Your task to perform on an android device: delete location history Image 0: 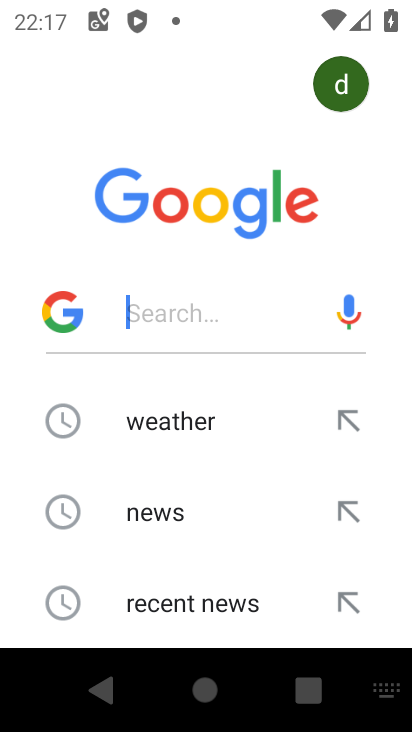
Step 0: press home button
Your task to perform on an android device: delete location history Image 1: 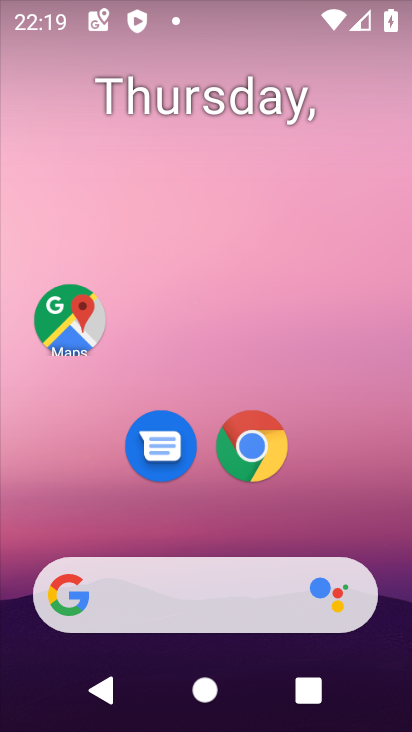
Step 1: click (36, 316)
Your task to perform on an android device: delete location history Image 2: 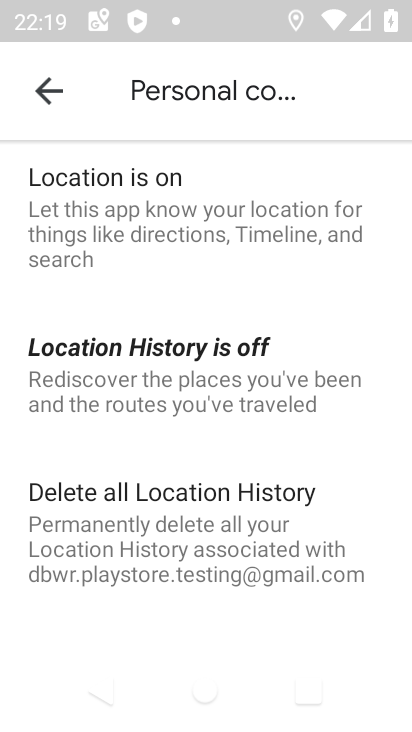
Step 2: click (47, 108)
Your task to perform on an android device: delete location history Image 3: 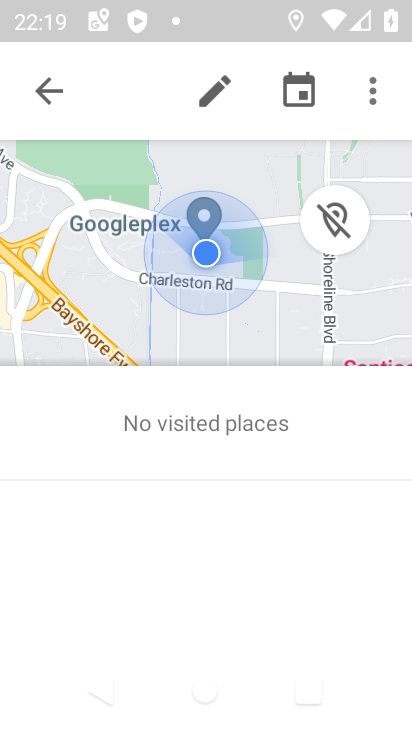
Step 3: click (67, 177)
Your task to perform on an android device: delete location history Image 4: 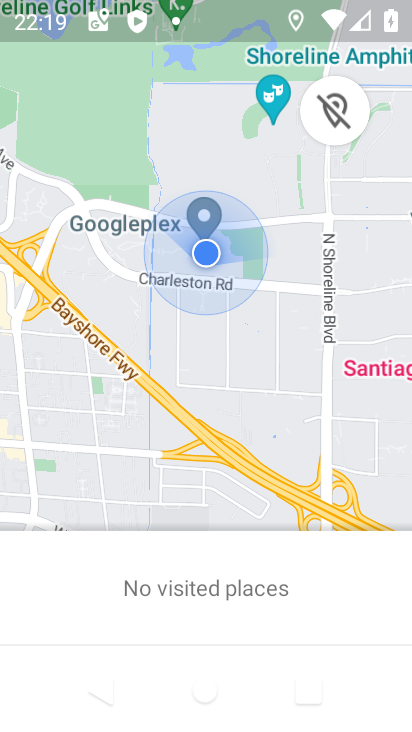
Step 4: click (49, 104)
Your task to perform on an android device: delete location history Image 5: 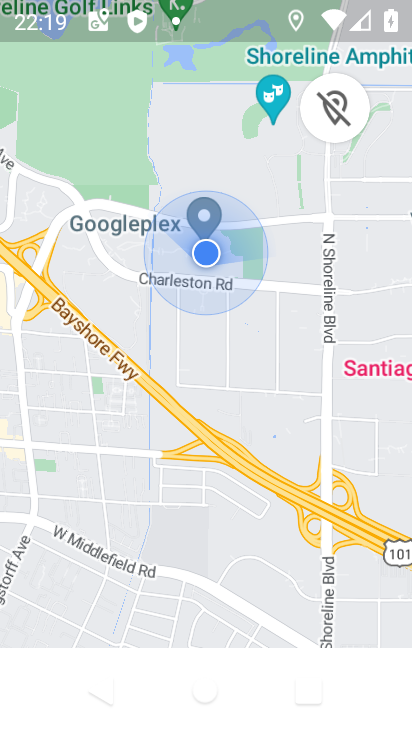
Step 5: press back button
Your task to perform on an android device: delete location history Image 6: 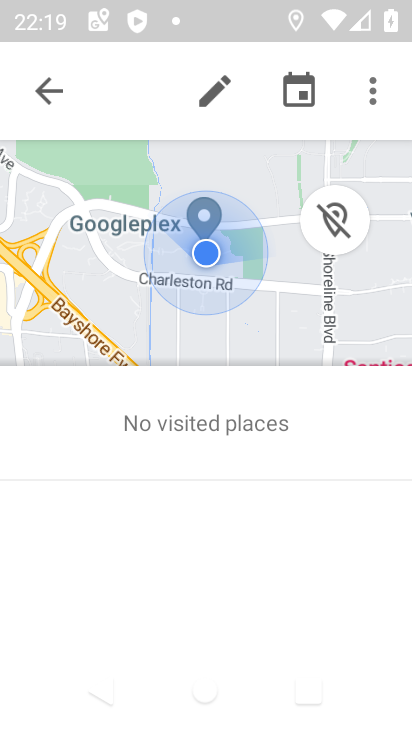
Step 6: press back button
Your task to perform on an android device: delete location history Image 7: 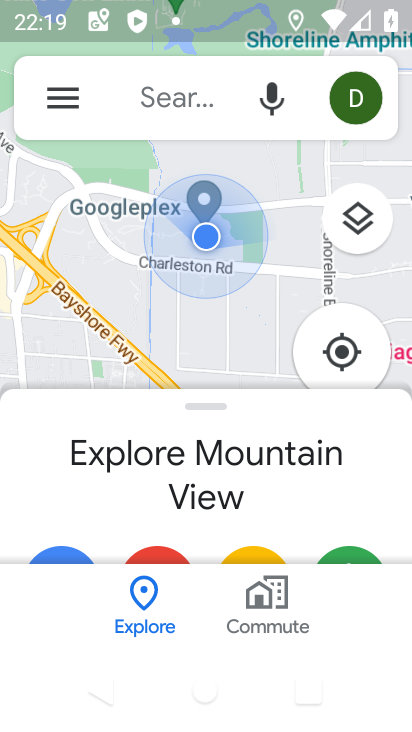
Step 7: click (71, 109)
Your task to perform on an android device: delete location history Image 8: 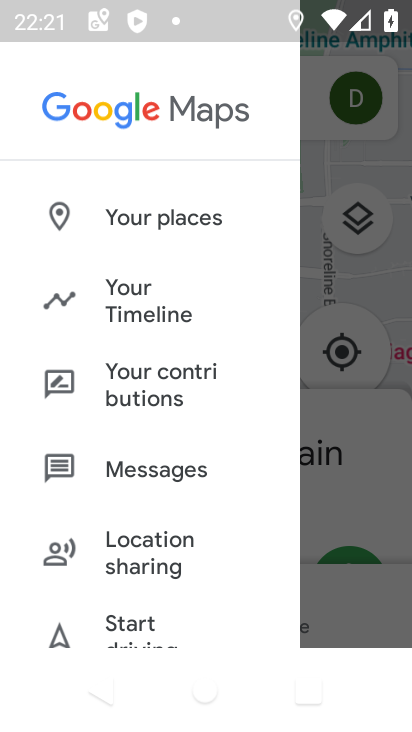
Step 8: click (146, 291)
Your task to perform on an android device: delete location history Image 9: 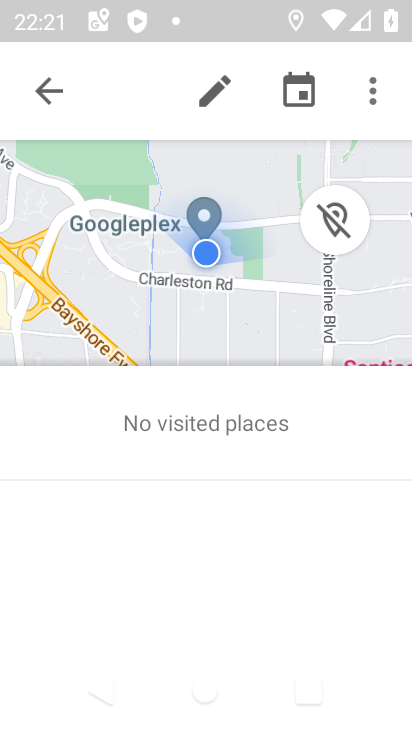
Step 9: click (378, 88)
Your task to perform on an android device: delete location history Image 10: 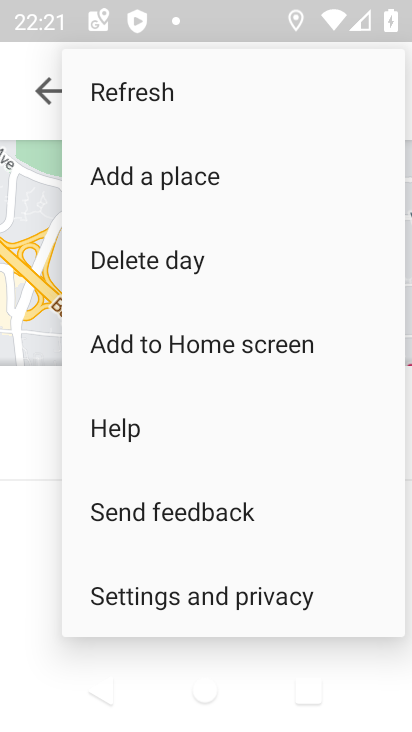
Step 10: click (178, 594)
Your task to perform on an android device: delete location history Image 11: 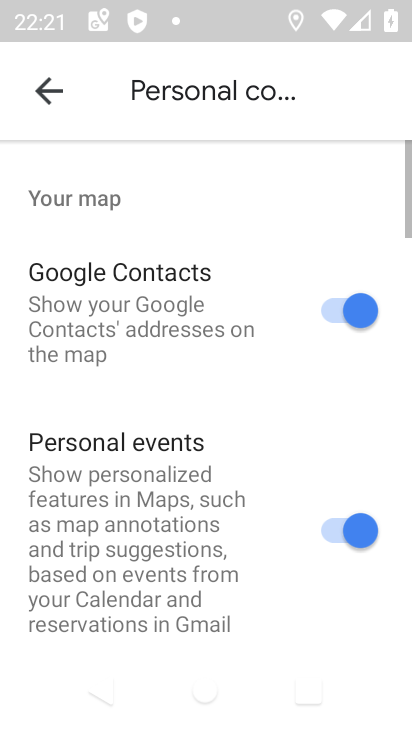
Step 11: drag from (196, 603) to (225, 101)
Your task to perform on an android device: delete location history Image 12: 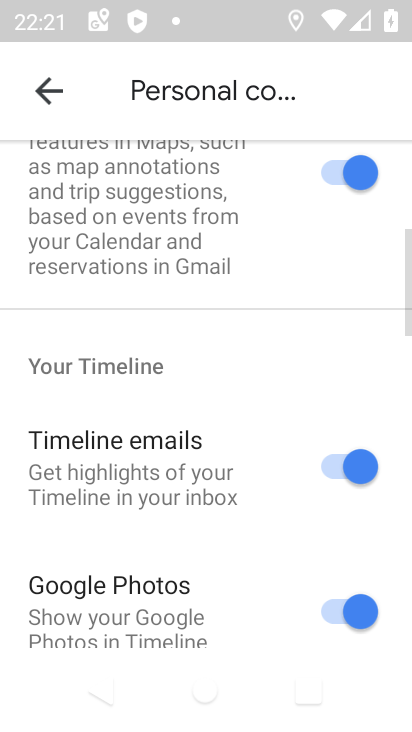
Step 12: drag from (218, 382) to (219, 91)
Your task to perform on an android device: delete location history Image 13: 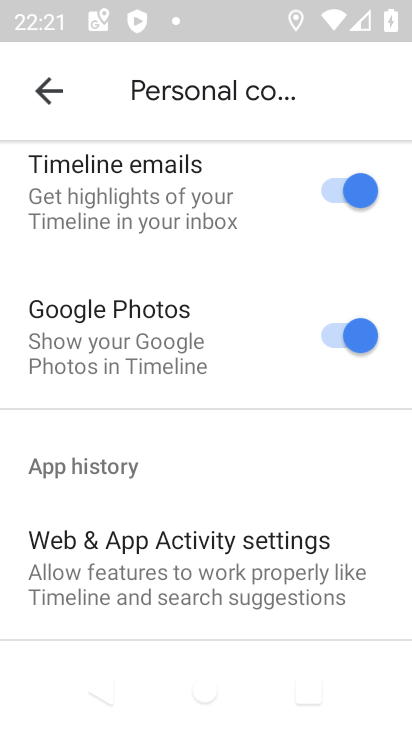
Step 13: drag from (221, 291) to (217, 16)
Your task to perform on an android device: delete location history Image 14: 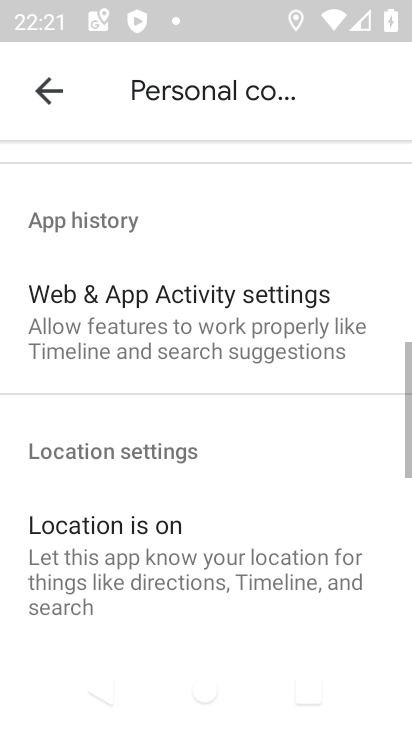
Step 14: drag from (172, 392) to (196, 77)
Your task to perform on an android device: delete location history Image 15: 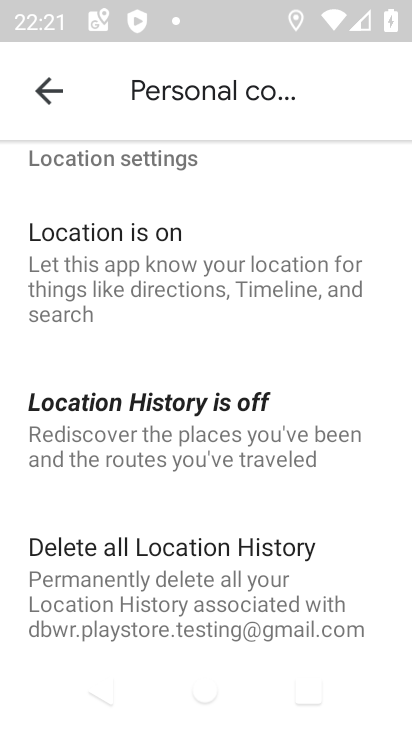
Step 15: click (170, 409)
Your task to perform on an android device: delete location history Image 16: 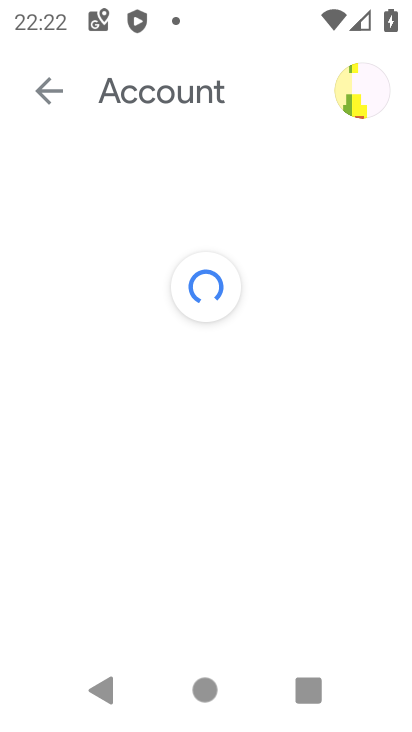
Step 16: press back button
Your task to perform on an android device: delete location history Image 17: 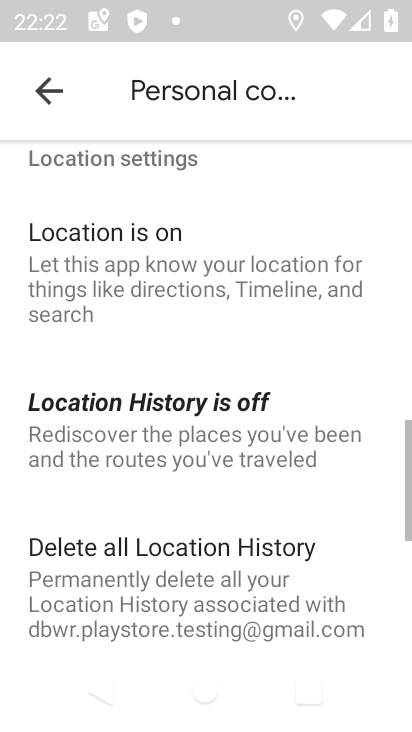
Step 17: click (93, 616)
Your task to perform on an android device: delete location history Image 18: 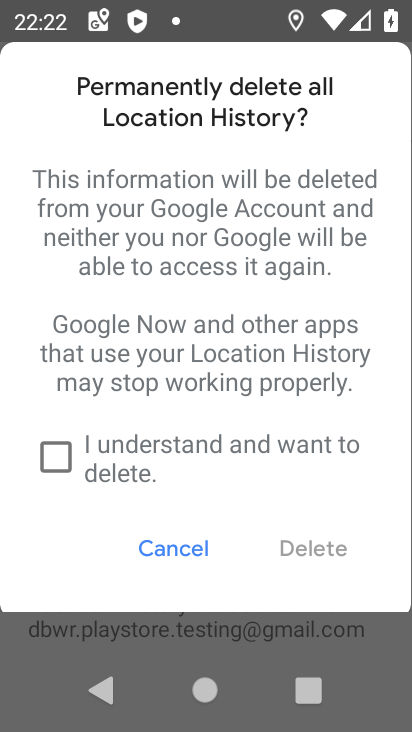
Step 18: click (103, 415)
Your task to perform on an android device: delete location history Image 19: 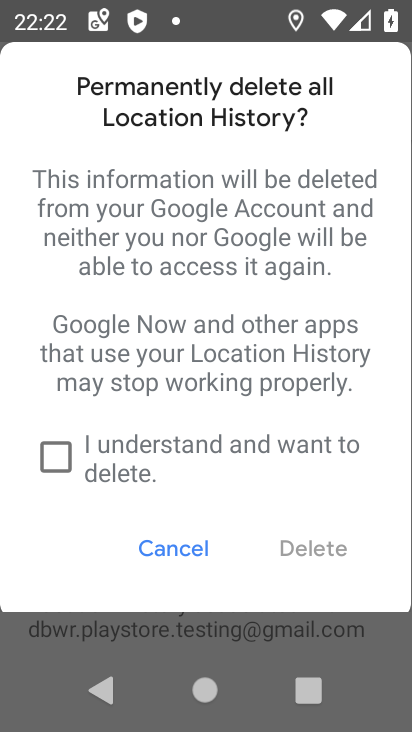
Step 19: click (107, 454)
Your task to perform on an android device: delete location history Image 20: 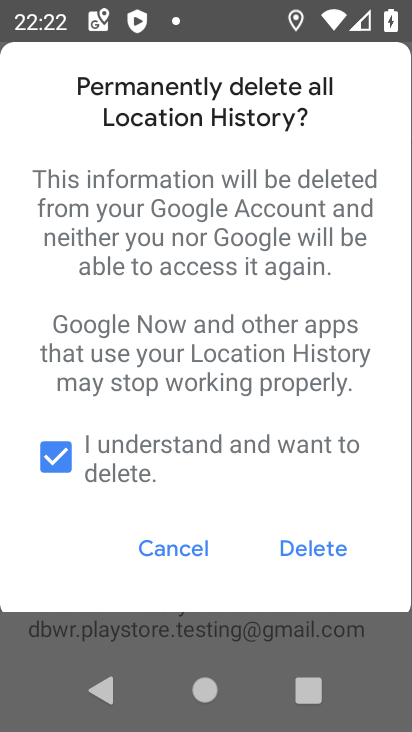
Step 20: click (297, 565)
Your task to perform on an android device: delete location history Image 21: 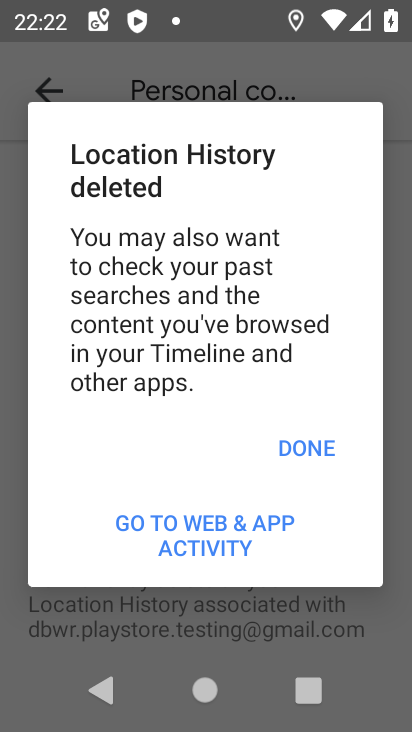
Step 21: click (308, 452)
Your task to perform on an android device: delete location history Image 22: 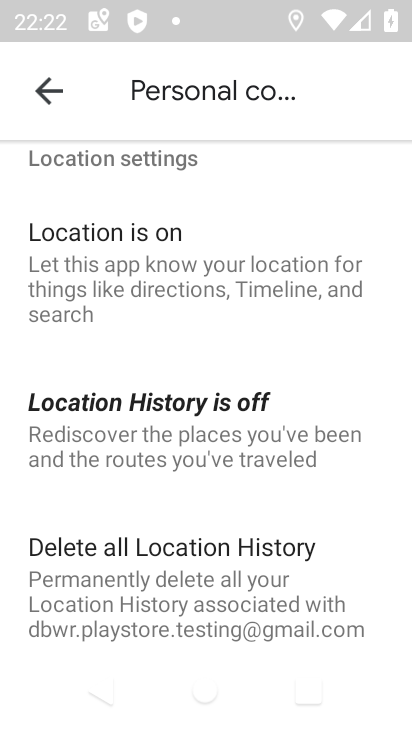
Step 22: task complete